Your task to perform on an android device: Go to ESPN.com Image 0: 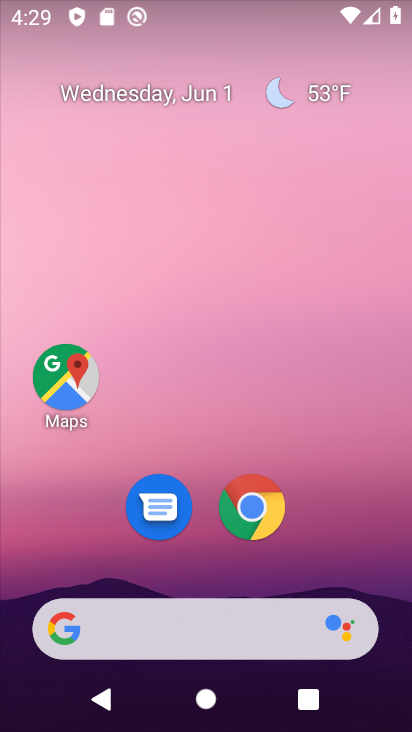
Step 0: click (259, 519)
Your task to perform on an android device: Go to ESPN.com Image 1: 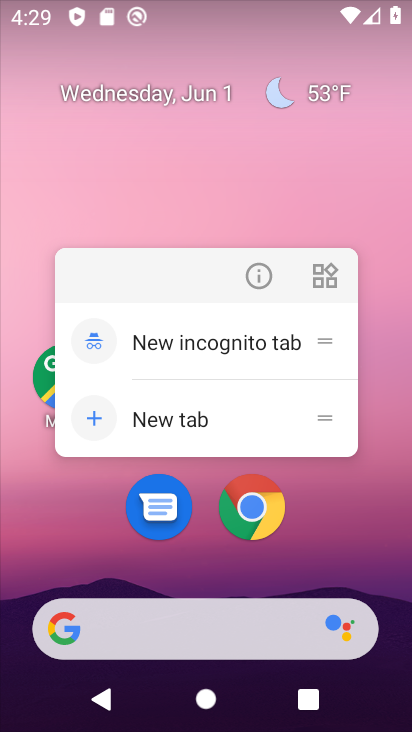
Step 1: click (258, 507)
Your task to perform on an android device: Go to ESPN.com Image 2: 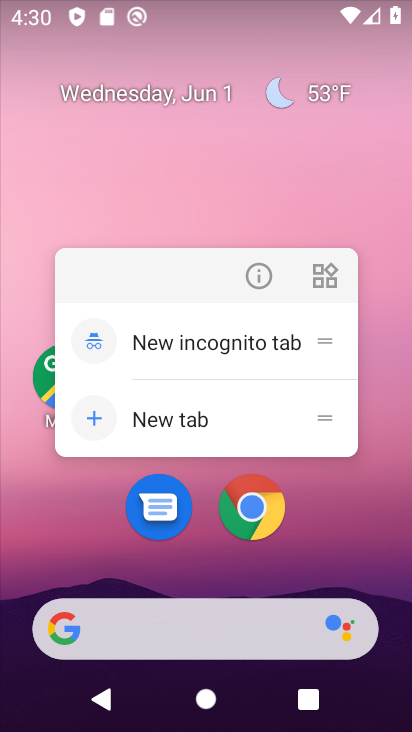
Step 2: click (261, 519)
Your task to perform on an android device: Go to ESPN.com Image 3: 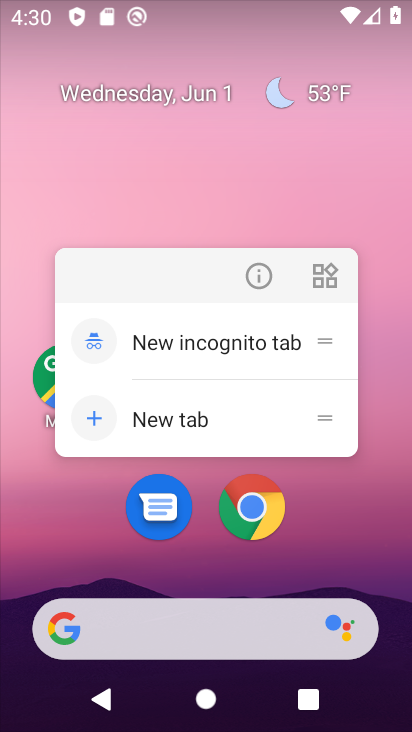
Step 3: click (264, 509)
Your task to perform on an android device: Go to ESPN.com Image 4: 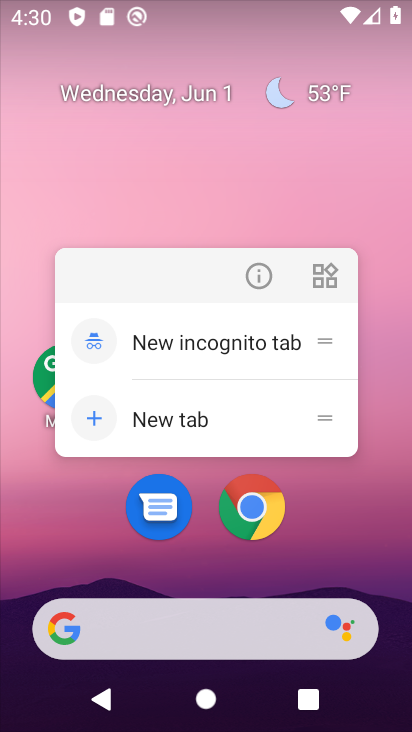
Step 4: click (279, 519)
Your task to perform on an android device: Go to ESPN.com Image 5: 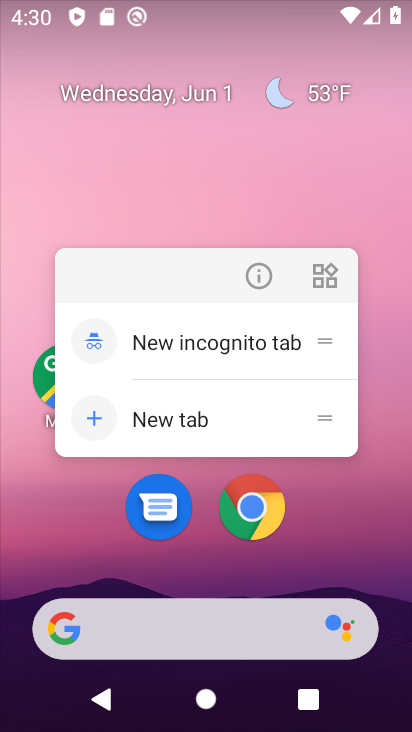
Step 5: click (250, 511)
Your task to perform on an android device: Go to ESPN.com Image 6: 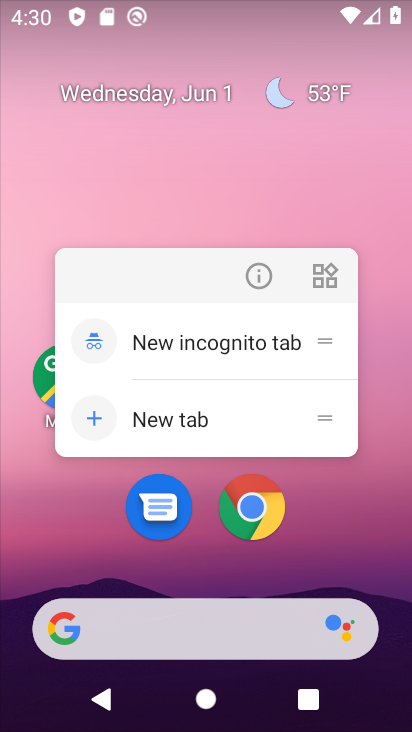
Step 6: click (250, 511)
Your task to perform on an android device: Go to ESPN.com Image 7: 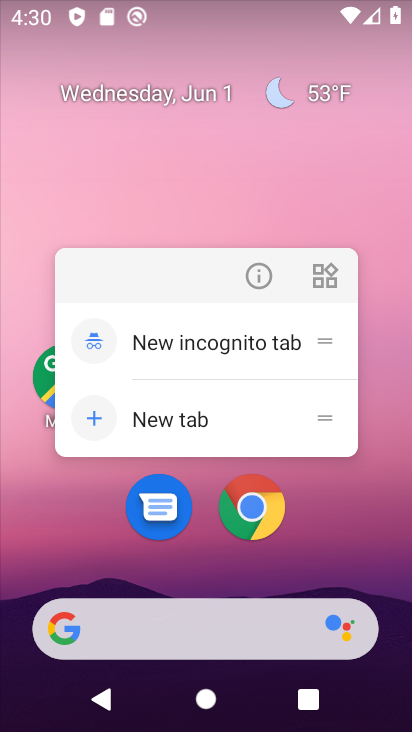
Step 7: click (249, 504)
Your task to perform on an android device: Go to ESPN.com Image 8: 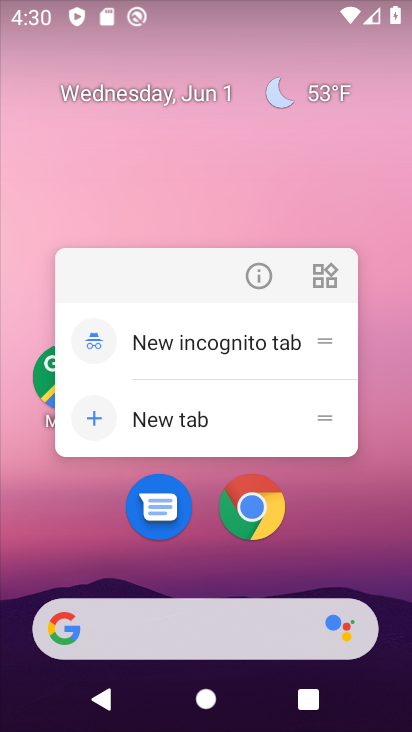
Step 8: click (249, 504)
Your task to perform on an android device: Go to ESPN.com Image 9: 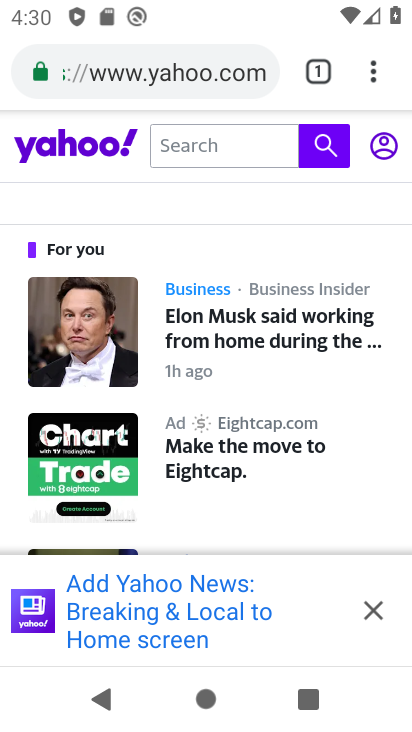
Step 9: click (211, 61)
Your task to perform on an android device: Go to ESPN.com Image 10: 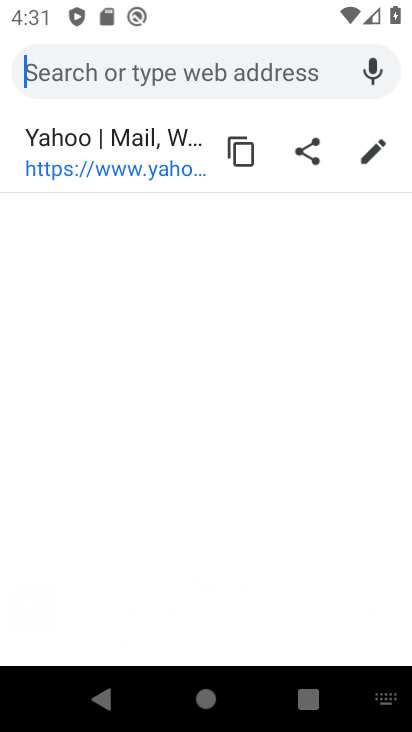
Step 10: type "espn"
Your task to perform on an android device: Go to ESPN.com Image 11: 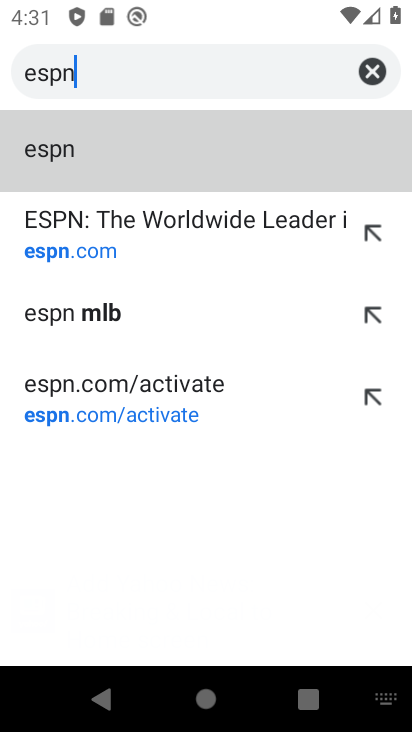
Step 11: click (67, 252)
Your task to perform on an android device: Go to ESPN.com Image 12: 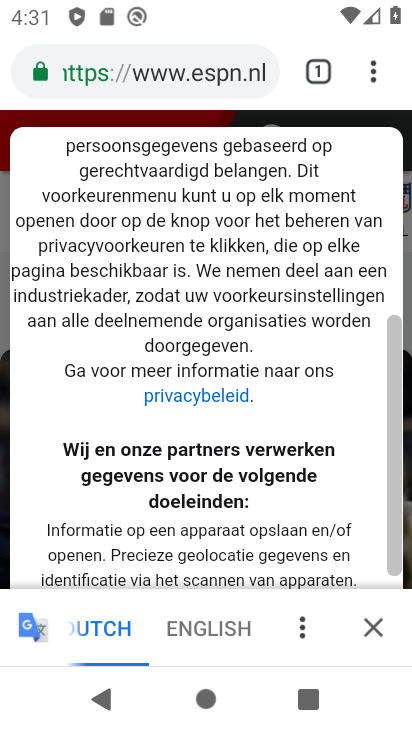
Step 12: task complete